Your task to perform on an android device: find which apps use the phone's location Image 0: 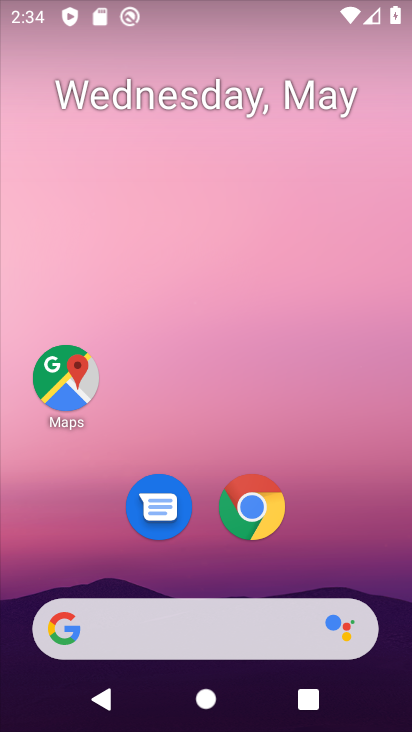
Step 0: drag from (198, 426) to (196, 34)
Your task to perform on an android device: find which apps use the phone's location Image 1: 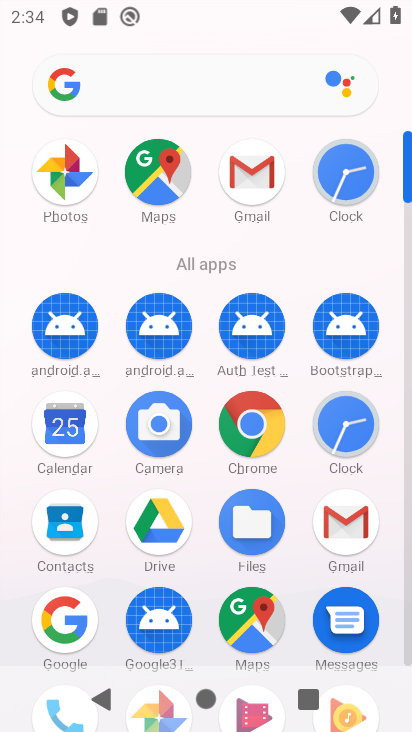
Step 1: drag from (203, 572) to (219, 60)
Your task to perform on an android device: find which apps use the phone's location Image 2: 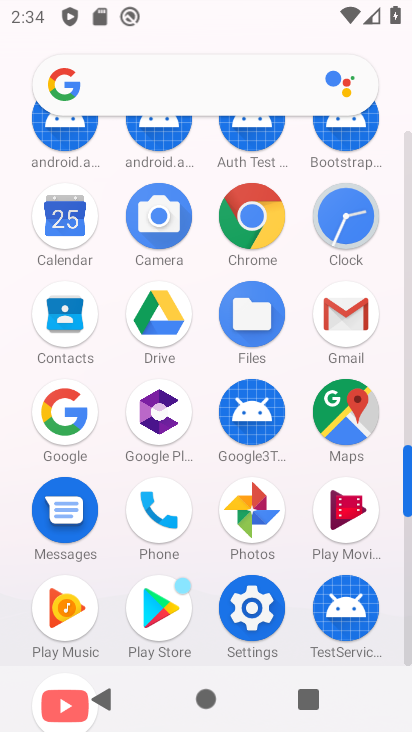
Step 2: click (252, 608)
Your task to perform on an android device: find which apps use the phone's location Image 3: 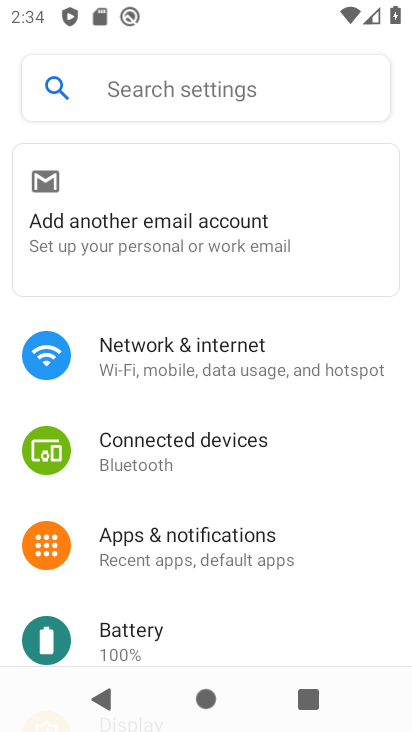
Step 3: drag from (270, 597) to (295, 187)
Your task to perform on an android device: find which apps use the phone's location Image 4: 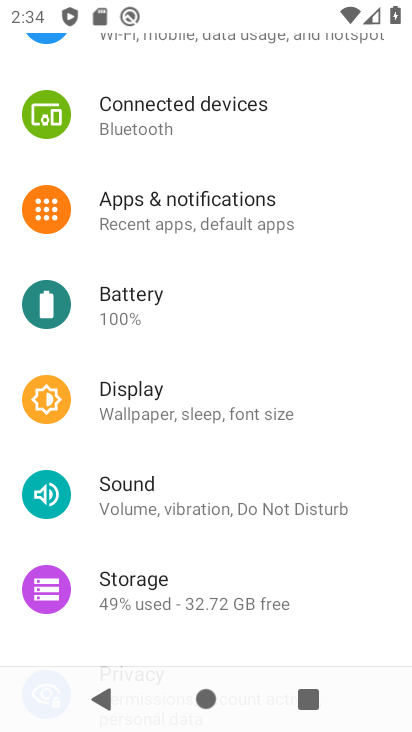
Step 4: drag from (232, 543) to (247, 348)
Your task to perform on an android device: find which apps use the phone's location Image 5: 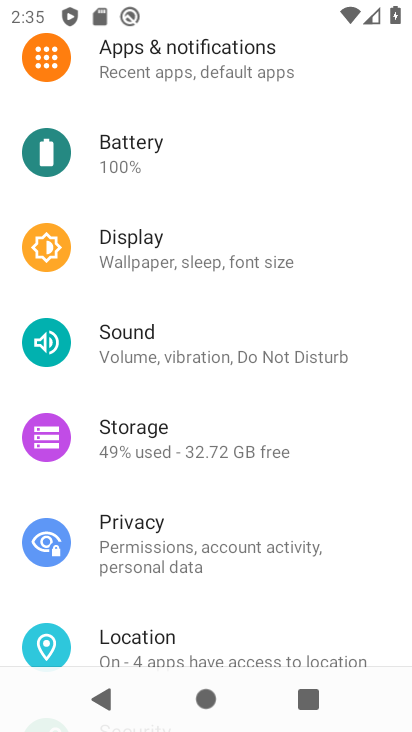
Step 5: drag from (205, 221) to (227, 98)
Your task to perform on an android device: find which apps use the phone's location Image 6: 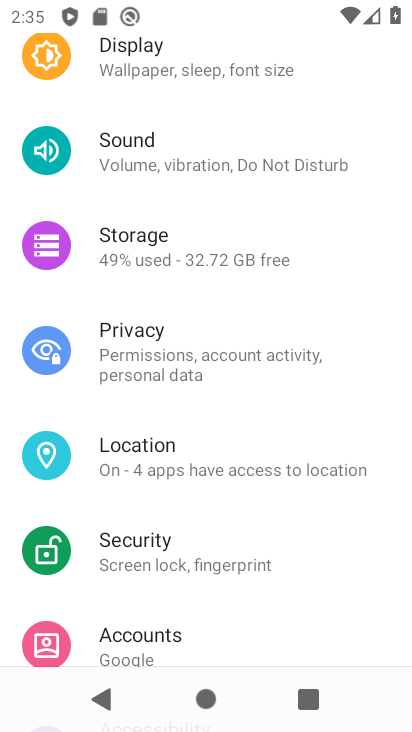
Step 6: click (143, 448)
Your task to perform on an android device: find which apps use the phone's location Image 7: 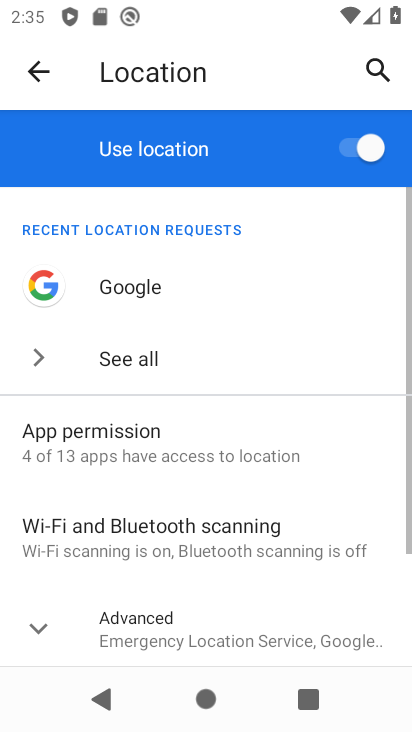
Step 7: click (128, 453)
Your task to perform on an android device: find which apps use the phone's location Image 8: 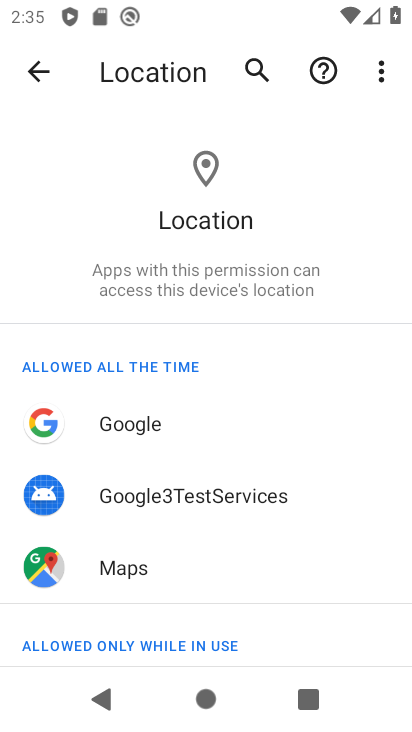
Step 8: task complete